Your task to perform on an android device: Open Android settings Image 0: 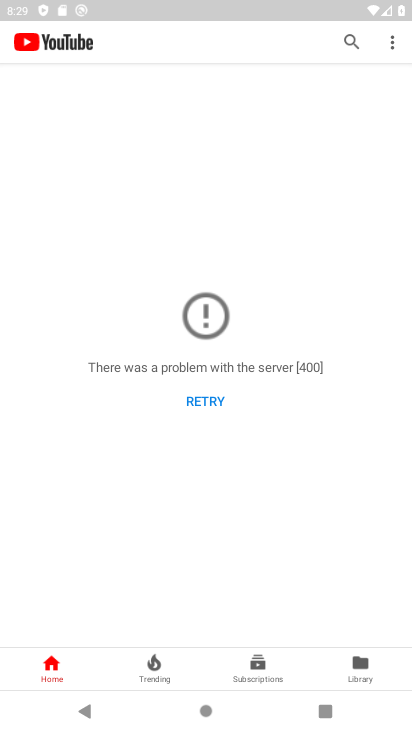
Step 0: press home button
Your task to perform on an android device: Open Android settings Image 1: 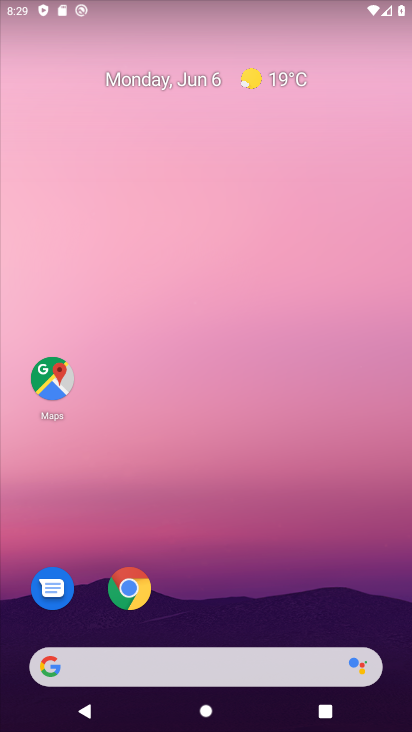
Step 1: drag from (245, 657) to (348, 144)
Your task to perform on an android device: Open Android settings Image 2: 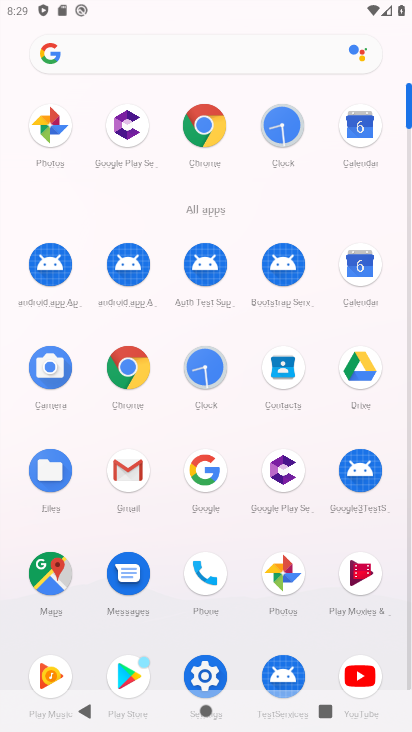
Step 2: click (204, 674)
Your task to perform on an android device: Open Android settings Image 3: 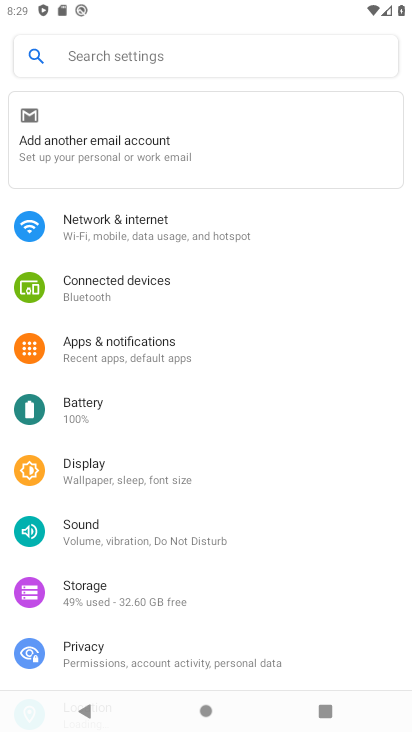
Step 3: drag from (142, 626) to (244, 18)
Your task to perform on an android device: Open Android settings Image 4: 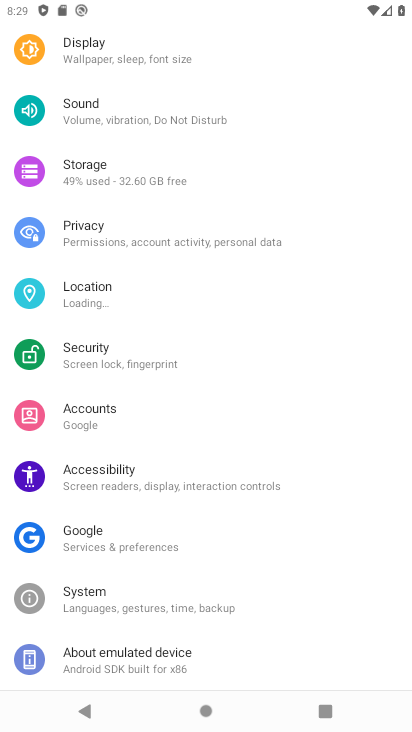
Step 4: click (189, 664)
Your task to perform on an android device: Open Android settings Image 5: 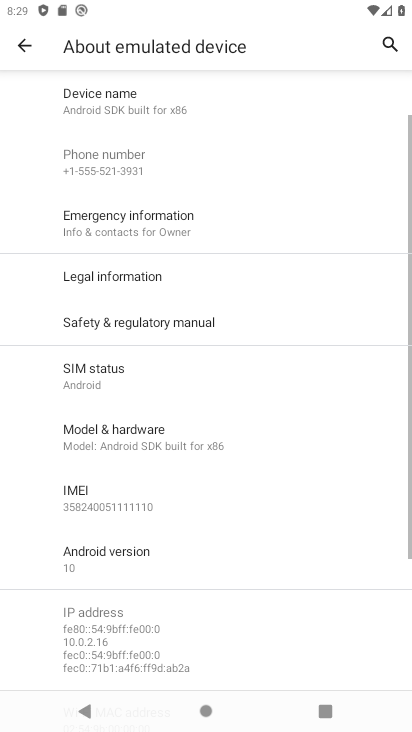
Step 5: click (119, 555)
Your task to perform on an android device: Open Android settings Image 6: 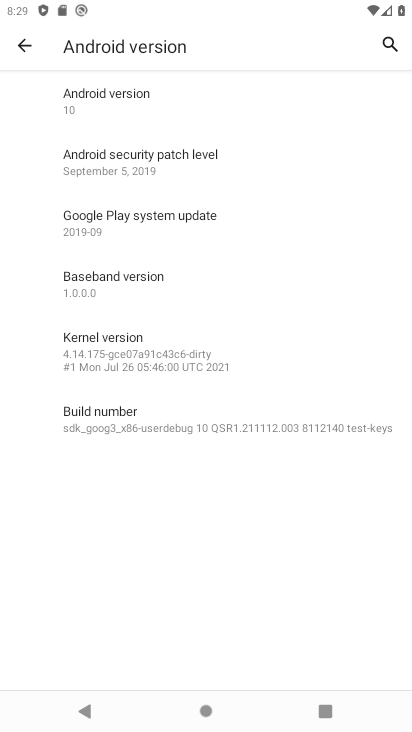
Step 6: task complete